Your task to perform on an android device: turn on improve location accuracy Image 0: 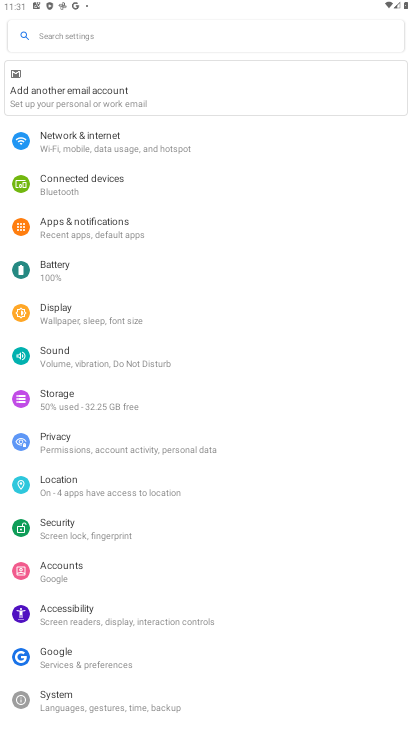
Step 0: task complete